Your task to perform on an android device: turn on improve location accuracy Image 0: 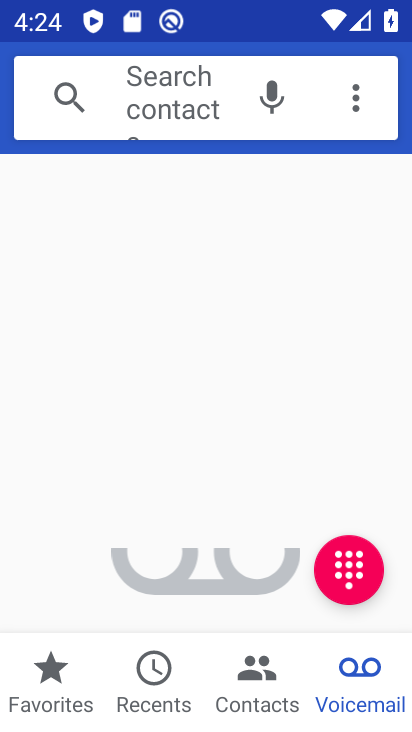
Step 0: click (70, 388)
Your task to perform on an android device: turn on improve location accuracy Image 1: 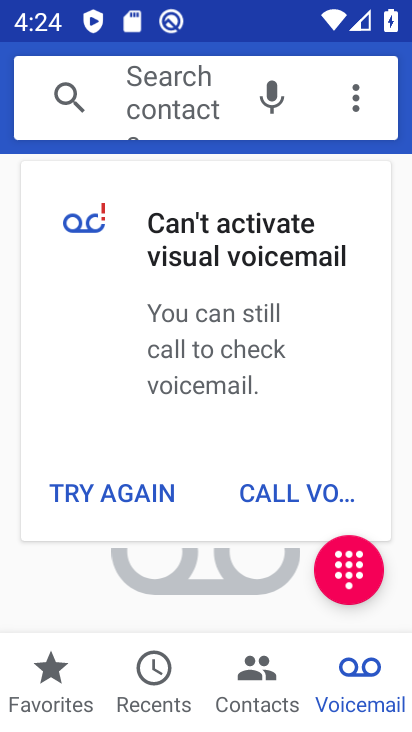
Step 1: press back button
Your task to perform on an android device: turn on improve location accuracy Image 2: 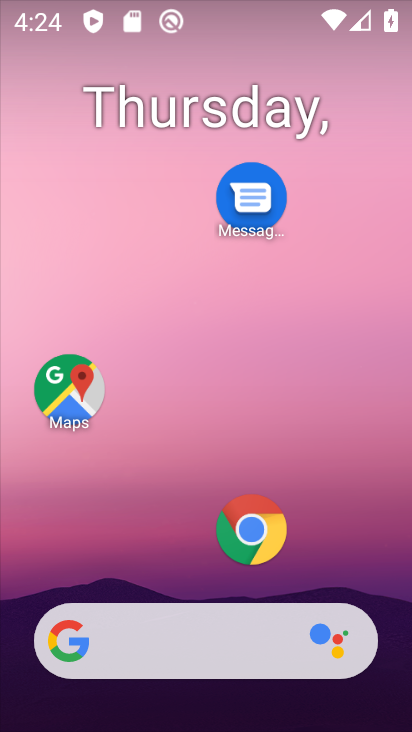
Step 2: drag from (141, 476) to (285, 44)
Your task to perform on an android device: turn on improve location accuracy Image 3: 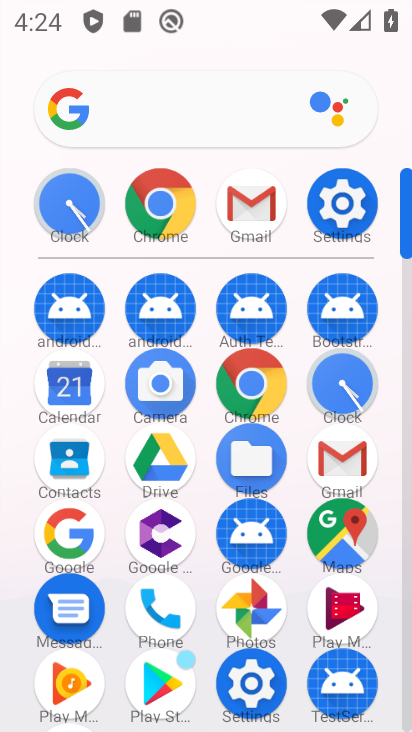
Step 3: click (337, 180)
Your task to perform on an android device: turn on improve location accuracy Image 4: 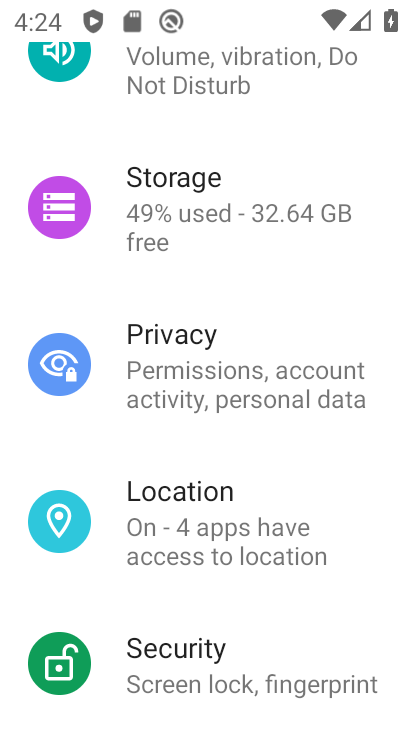
Step 4: click (217, 512)
Your task to perform on an android device: turn on improve location accuracy Image 5: 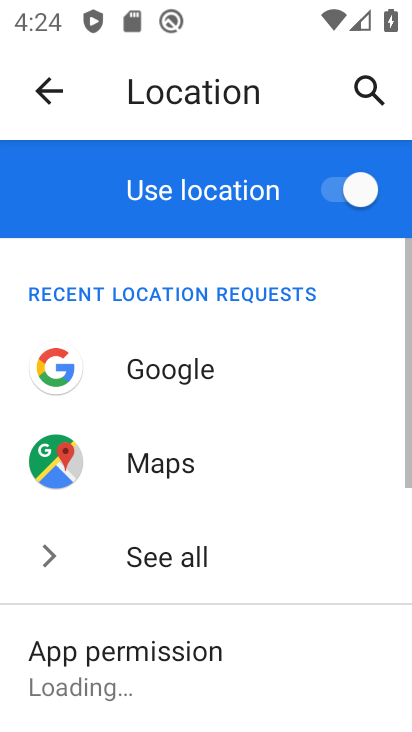
Step 5: drag from (174, 607) to (298, 79)
Your task to perform on an android device: turn on improve location accuracy Image 6: 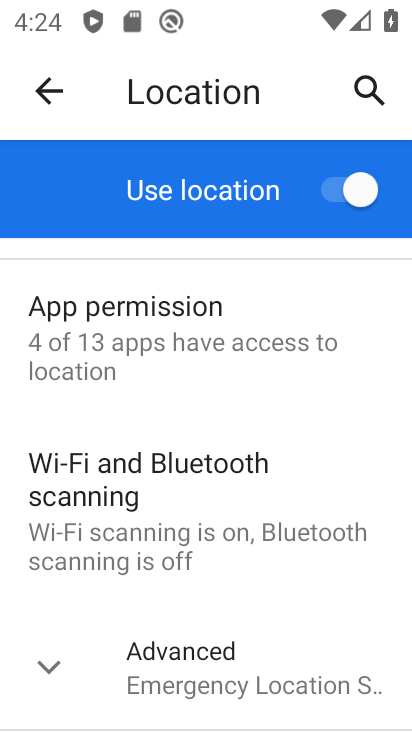
Step 6: click (185, 662)
Your task to perform on an android device: turn on improve location accuracy Image 7: 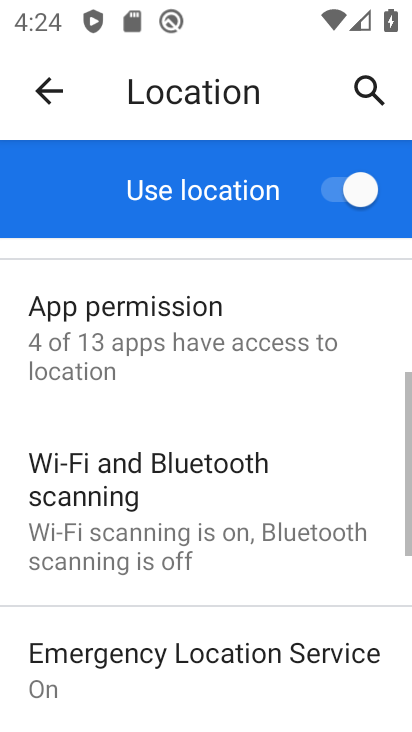
Step 7: drag from (190, 629) to (273, 197)
Your task to perform on an android device: turn on improve location accuracy Image 8: 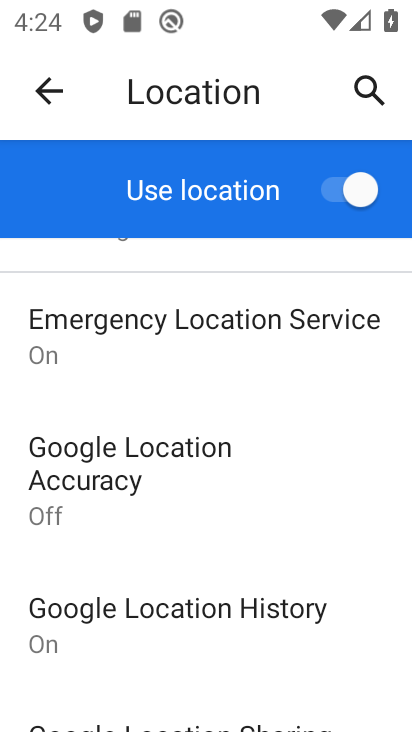
Step 8: click (110, 481)
Your task to perform on an android device: turn on improve location accuracy Image 9: 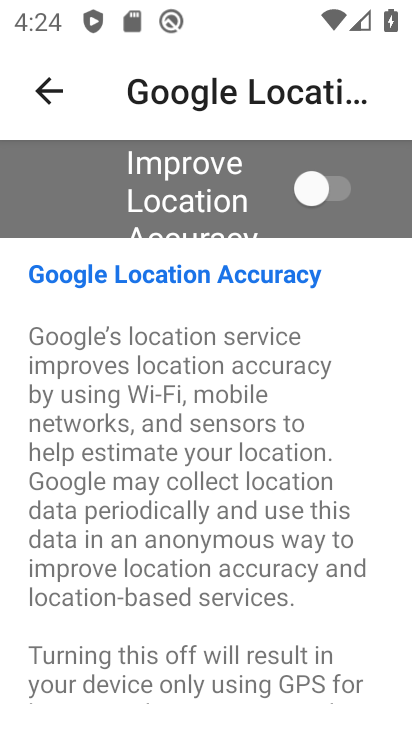
Step 9: click (304, 181)
Your task to perform on an android device: turn on improve location accuracy Image 10: 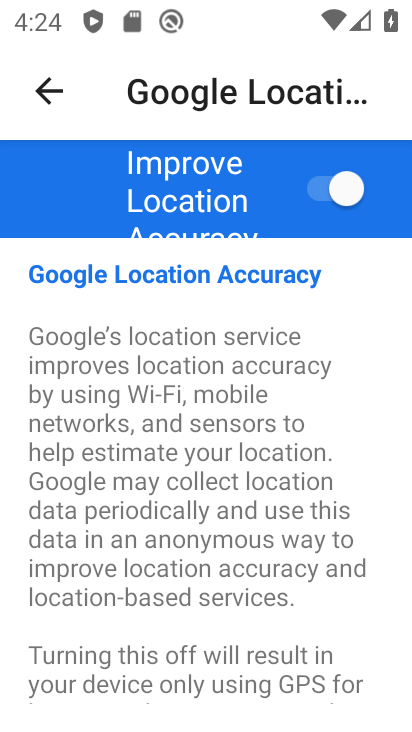
Step 10: task complete